Your task to perform on an android device: turn smart compose on in the gmail app Image 0: 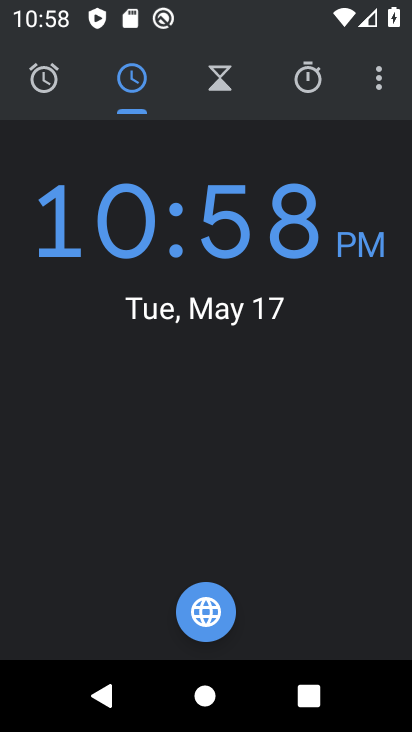
Step 0: press home button
Your task to perform on an android device: turn smart compose on in the gmail app Image 1: 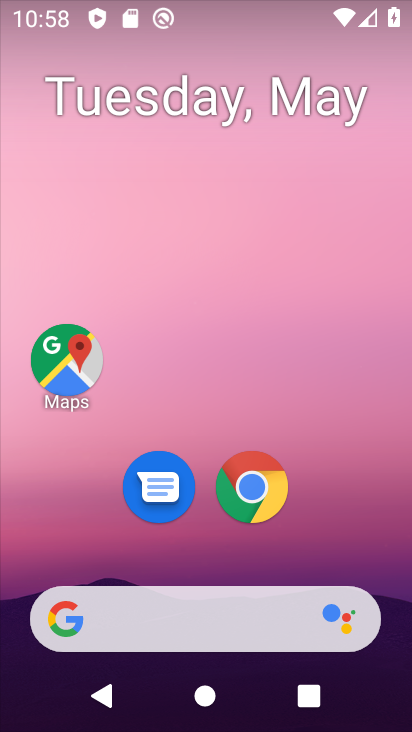
Step 1: drag from (315, 556) to (302, 154)
Your task to perform on an android device: turn smart compose on in the gmail app Image 2: 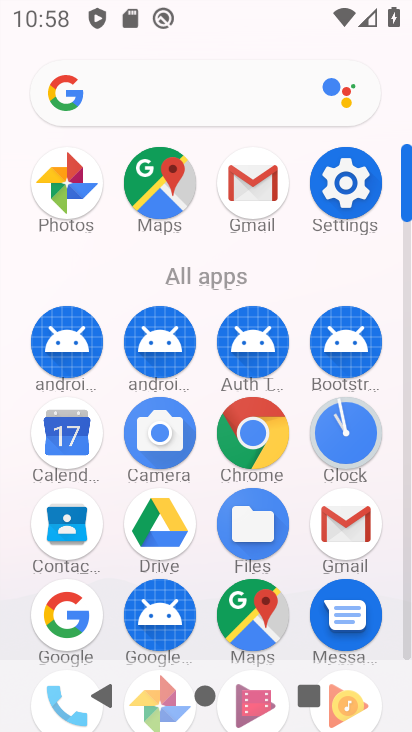
Step 2: click (239, 183)
Your task to perform on an android device: turn smart compose on in the gmail app Image 3: 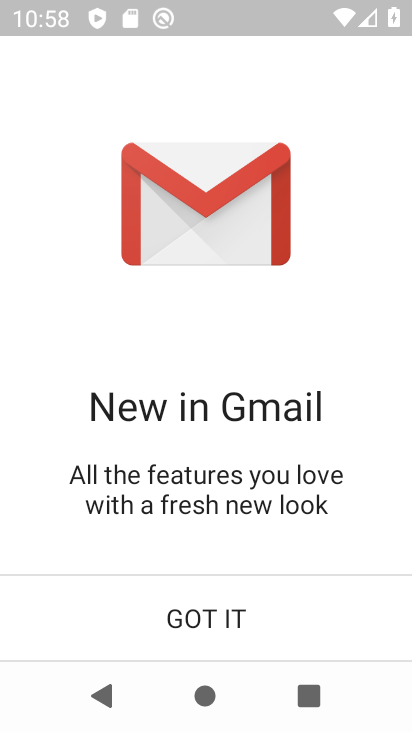
Step 3: click (149, 619)
Your task to perform on an android device: turn smart compose on in the gmail app Image 4: 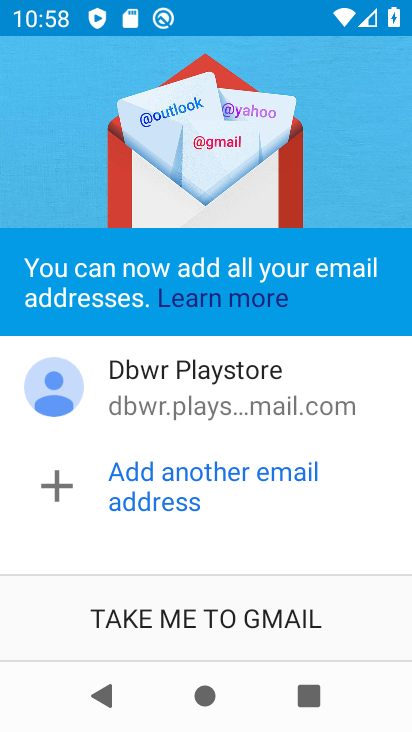
Step 4: click (198, 613)
Your task to perform on an android device: turn smart compose on in the gmail app Image 5: 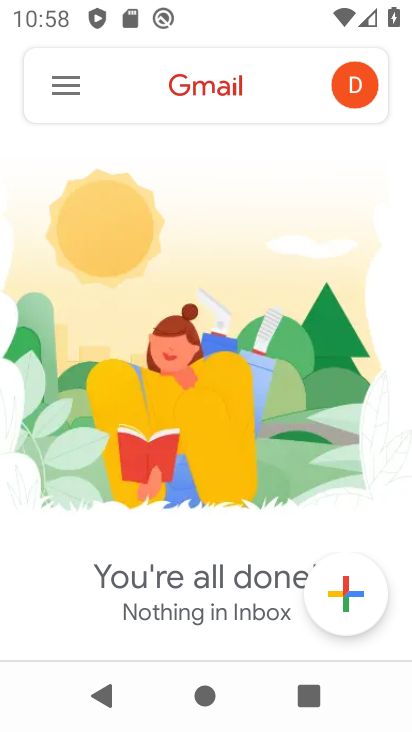
Step 5: click (71, 83)
Your task to perform on an android device: turn smart compose on in the gmail app Image 6: 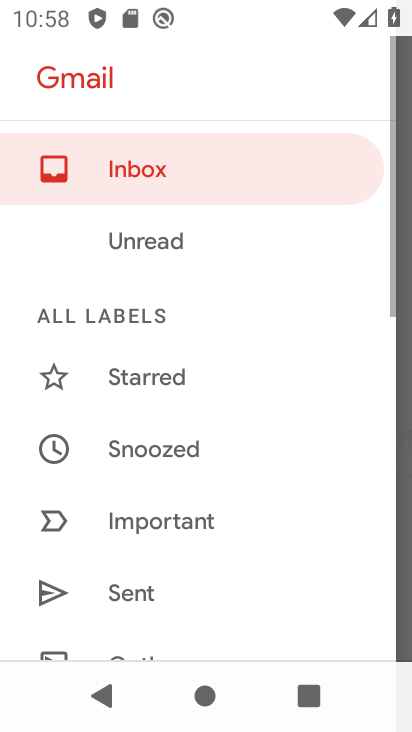
Step 6: drag from (221, 606) to (225, 303)
Your task to perform on an android device: turn smart compose on in the gmail app Image 7: 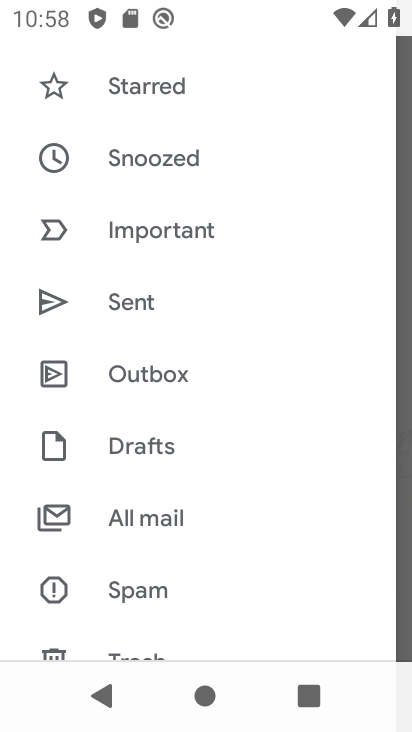
Step 7: drag from (134, 594) to (212, 322)
Your task to perform on an android device: turn smart compose on in the gmail app Image 8: 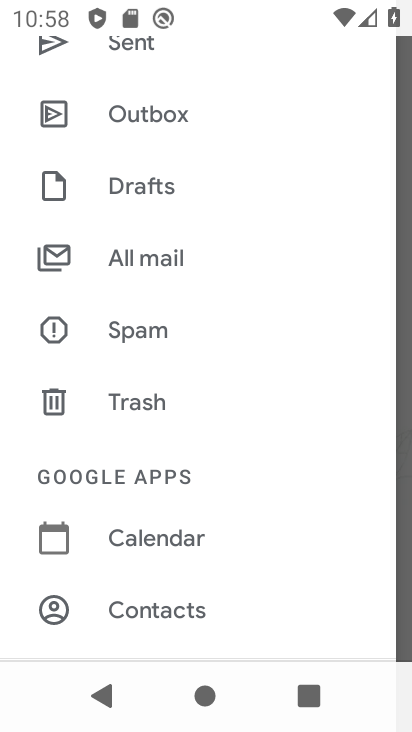
Step 8: drag from (168, 605) to (264, 290)
Your task to perform on an android device: turn smart compose on in the gmail app Image 9: 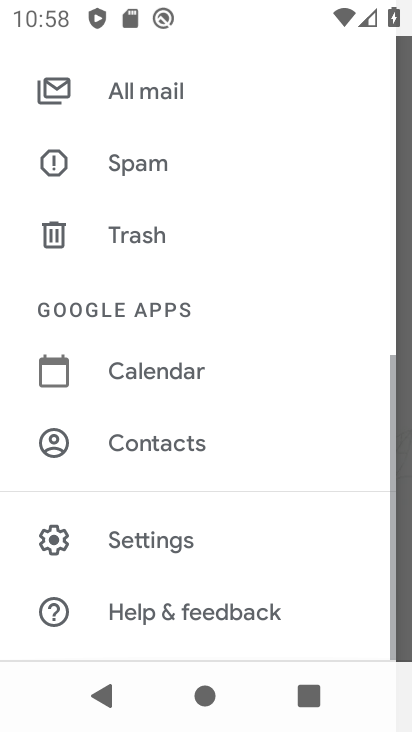
Step 9: click (156, 532)
Your task to perform on an android device: turn smart compose on in the gmail app Image 10: 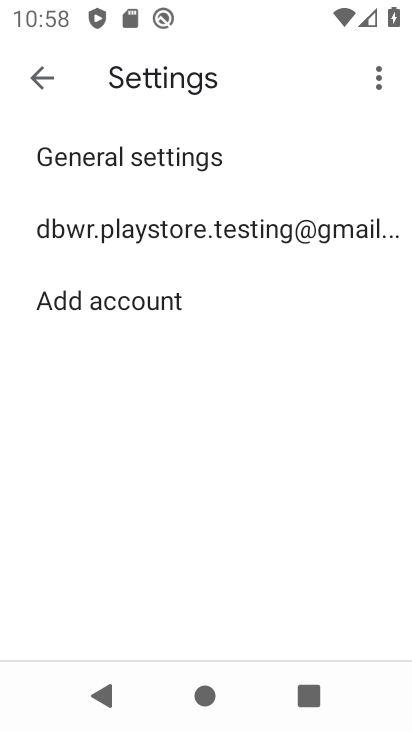
Step 10: click (235, 232)
Your task to perform on an android device: turn smart compose on in the gmail app Image 11: 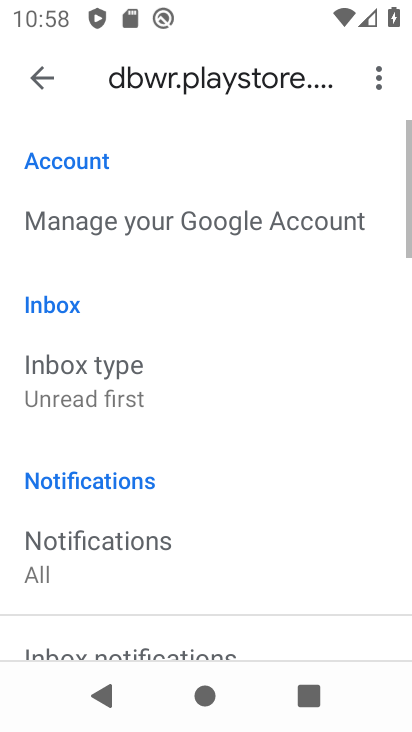
Step 11: task complete